Your task to perform on an android device: Set the phone to "Do not disturb". Image 0: 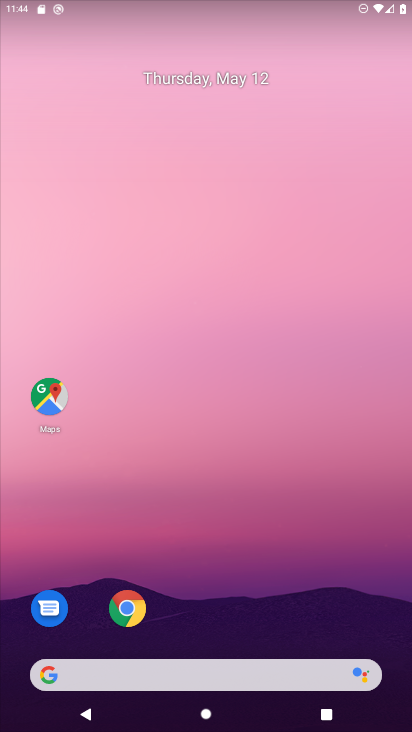
Step 0: drag from (203, 606) to (211, 64)
Your task to perform on an android device: Set the phone to "Do not disturb". Image 1: 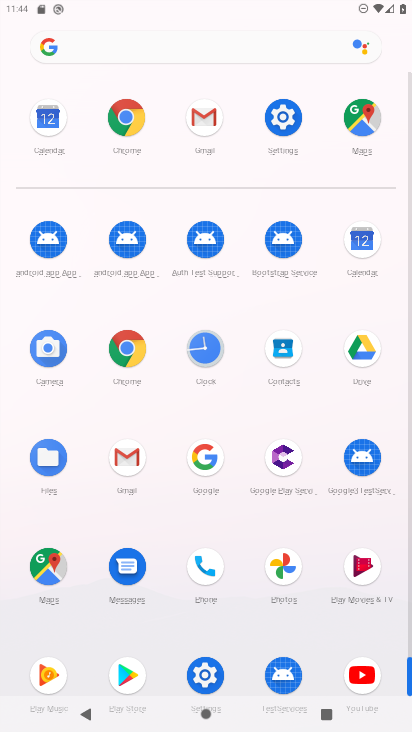
Step 1: click (277, 117)
Your task to perform on an android device: Set the phone to "Do not disturb". Image 2: 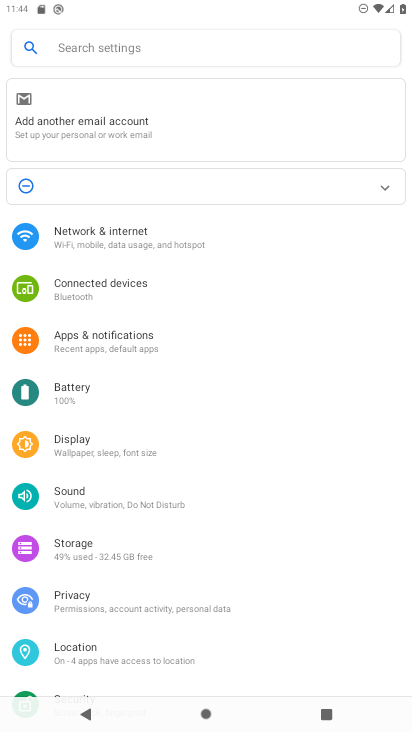
Step 2: click (116, 496)
Your task to perform on an android device: Set the phone to "Do not disturb". Image 3: 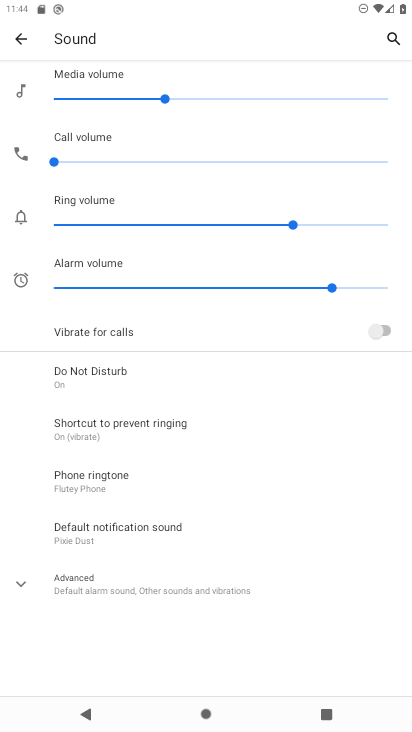
Step 3: click (100, 379)
Your task to perform on an android device: Set the phone to "Do not disturb". Image 4: 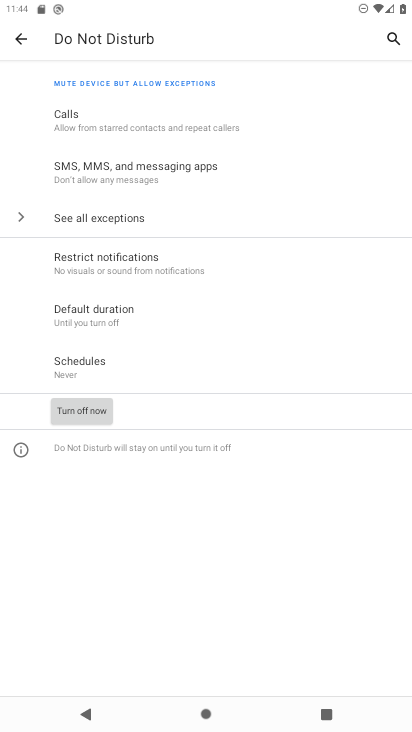
Step 4: task complete